Your task to perform on an android device: Open internet settings Image 0: 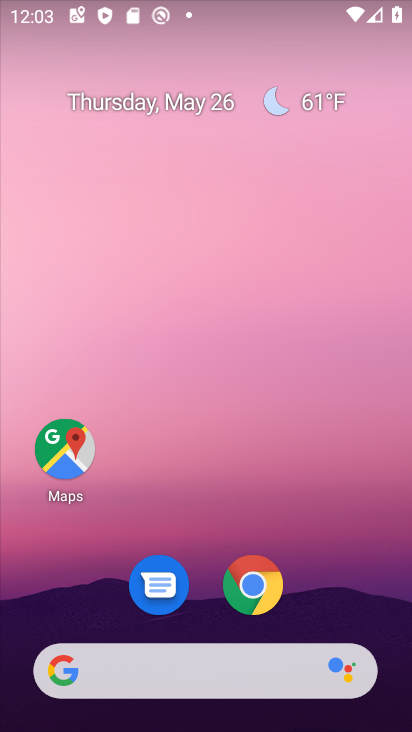
Step 0: drag from (229, 502) to (247, 52)
Your task to perform on an android device: Open internet settings Image 1: 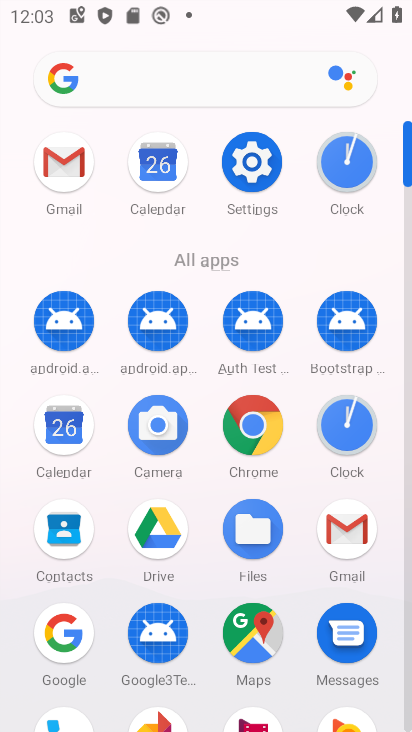
Step 1: click (246, 148)
Your task to perform on an android device: Open internet settings Image 2: 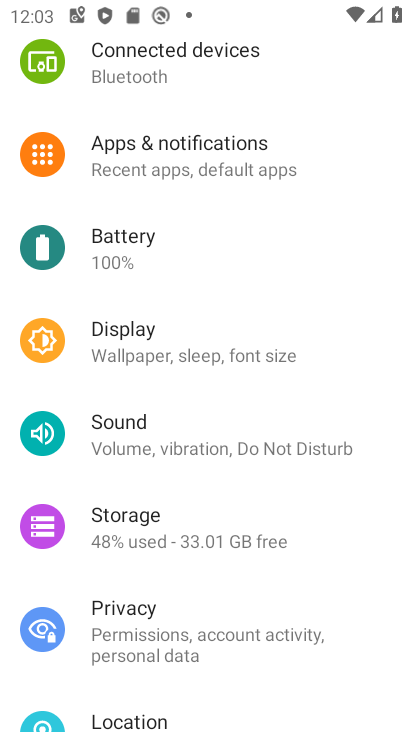
Step 2: drag from (236, 228) to (216, 537)
Your task to perform on an android device: Open internet settings Image 3: 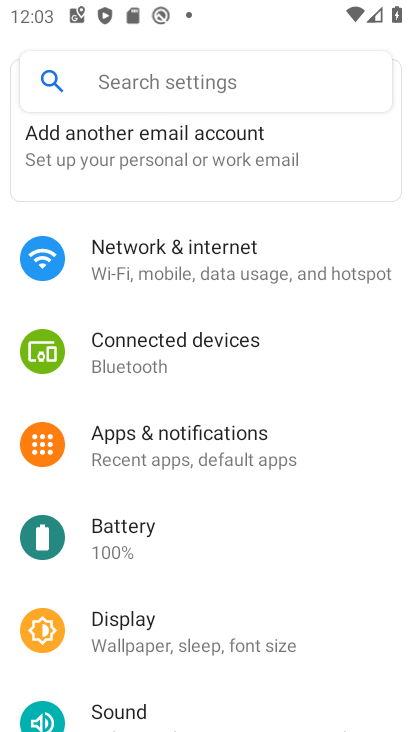
Step 3: click (274, 251)
Your task to perform on an android device: Open internet settings Image 4: 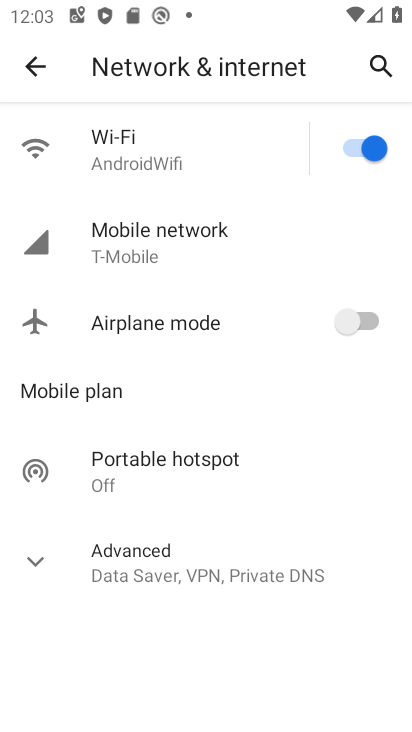
Step 4: task complete